Your task to perform on an android device: turn off translation in the chrome app Image 0: 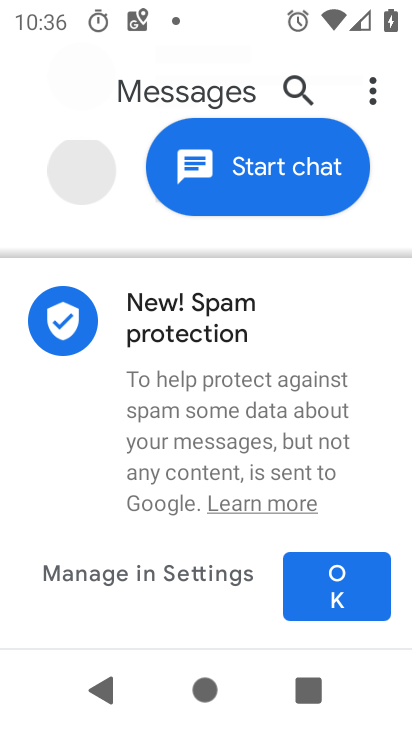
Step 0: press home button
Your task to perform on an android device: turn off translation in the chrome app Image 1: 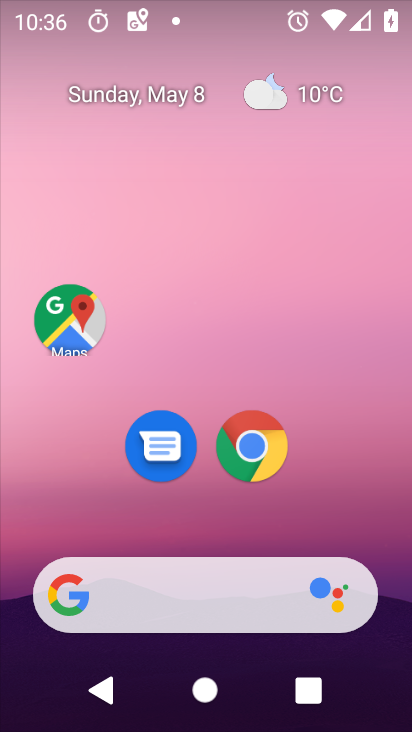
Step 1: click (261, 456)
Your task to perform on an android device: turn off translation in the chrome app Image 2: 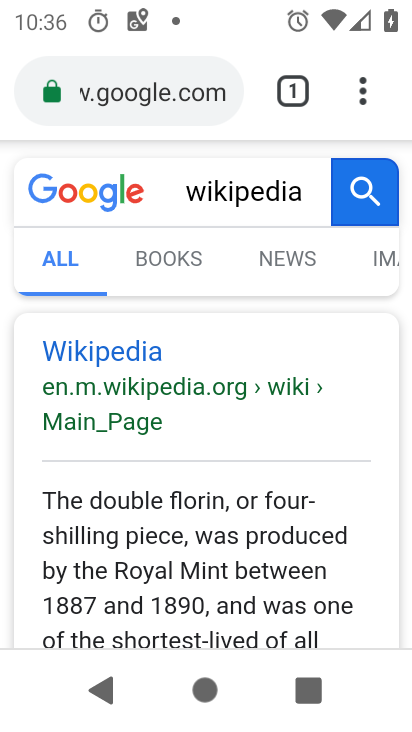
Step 2: click (363, 88)
Your task to perform on an android device: turn off translation in the chrome app Image 3: 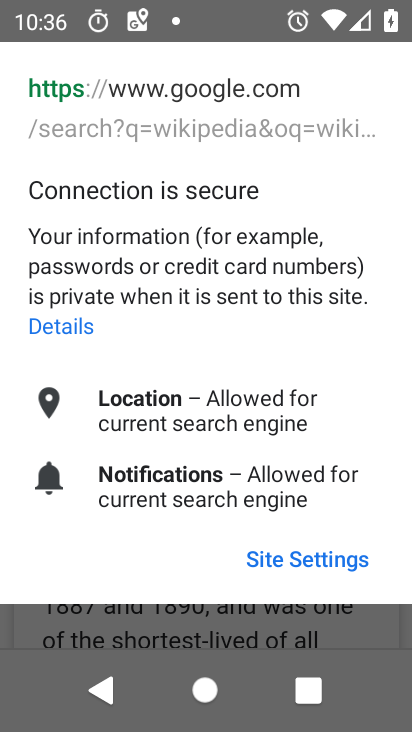
Step 3: click (381, 641)
Your task to perform on an android device: turn off translation in the chrome app Image 4: 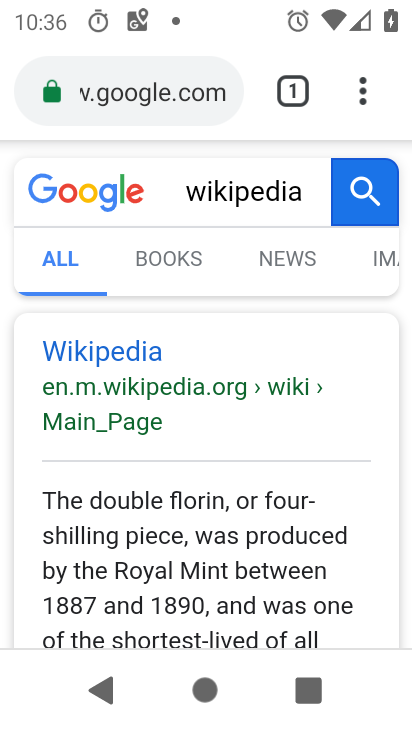
Step 4: drag from (361, 86) to (125, 494)
Your task to perform on an android device: turn off translation in the chrome app Image 5: 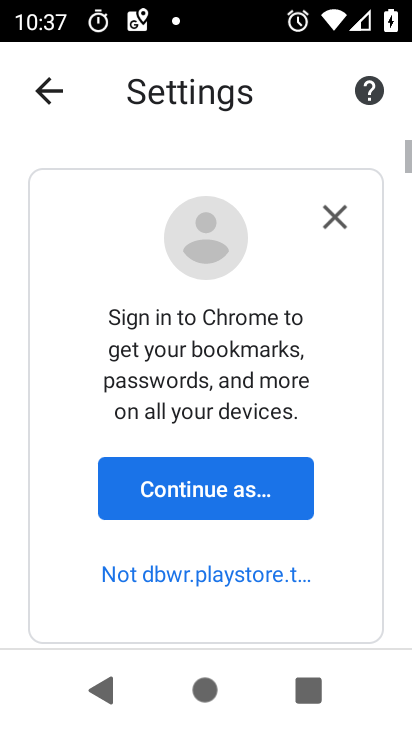
Step 5: drag from (213, 532) to (212, 120)
Your task to perform on an android device: turn off translation in the chrome app Image 6: 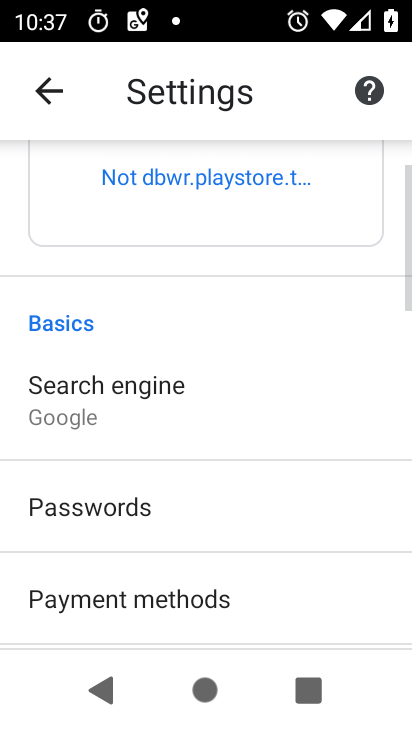
Step 6: drag from (193, 516) to (195, 143)
Your task to perform on an android device: turn off translation in the chrome app Image 7: 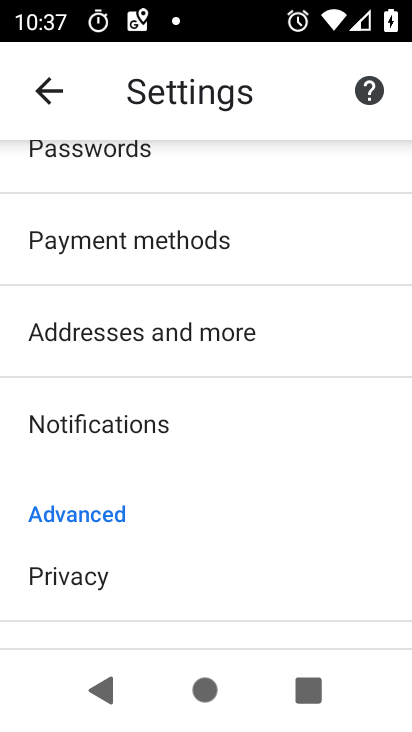
Step 7: drag from (193, 499) to (152, 98)
Your task to perform on an android device: turn off translation in the chrome app Image 8: 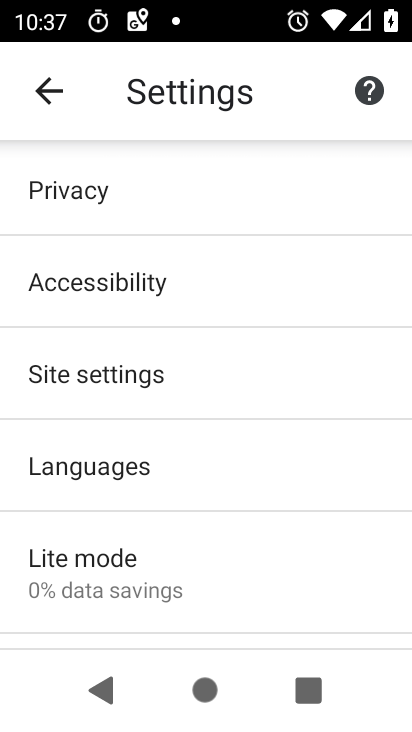
Step 8: click (122, 476)
Your task to perform on an android device: turn off translation in the chrome app Image 9: 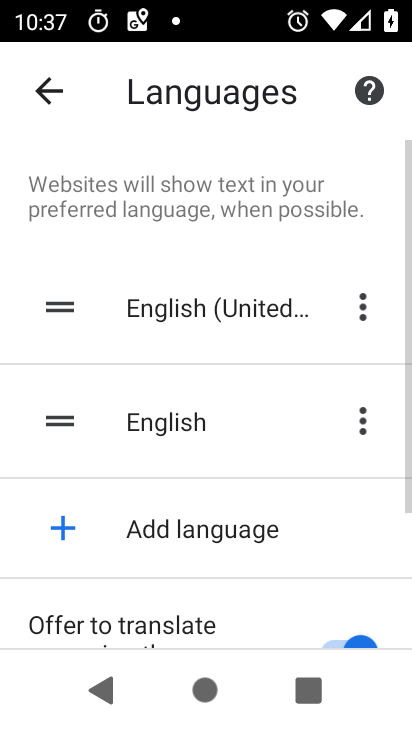
Step 9: drag from (167, 553) to (184, 254)
Your task to perform on an android device: turn off translation in the chrome app Image 10: 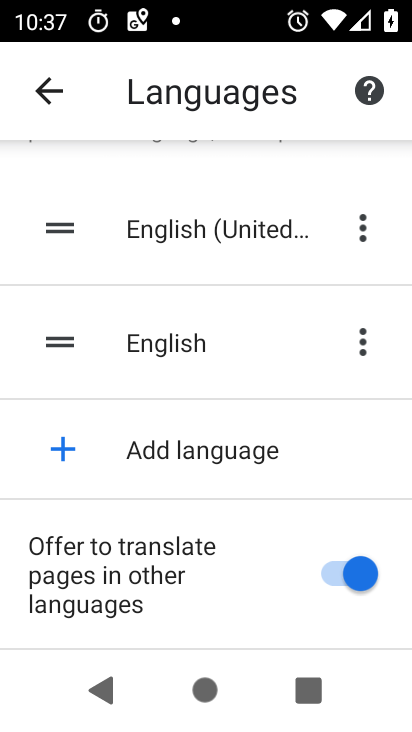
Step 10: click (345, 576)
Your task to perform on an android device: turn off translation in the chrome app Image 11: 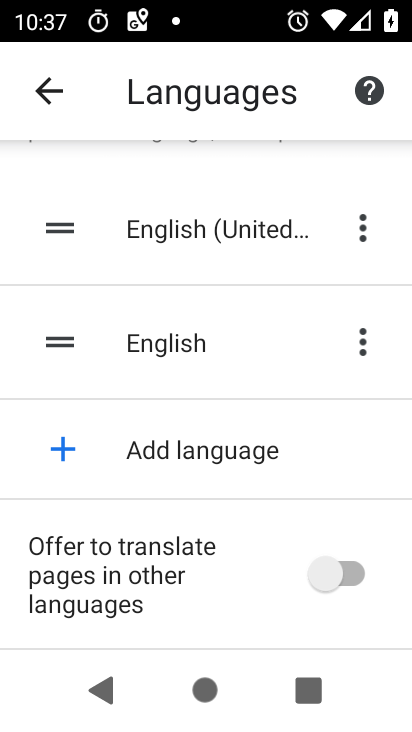
Step 11: task complete